Your task to perform on an android device: toggle notifications settings in the gmail app Image 0: 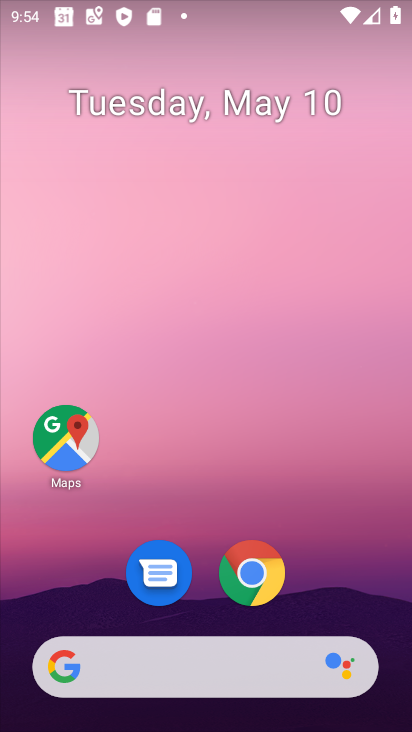
Step 0: drag from (358, 556) to (288, 201)
Your task to perform on an android device: toggle notifications settings in the gmail app Image 1: 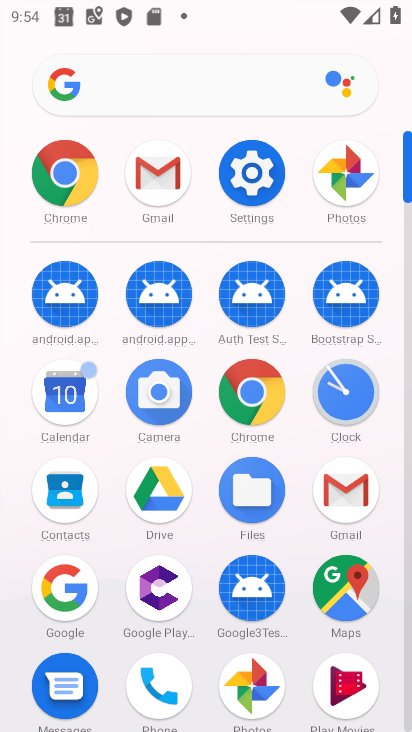
Step 1: click (160, 178)
Your task to perform on an android device: toggle notifications settings in the gmail app Image 2: 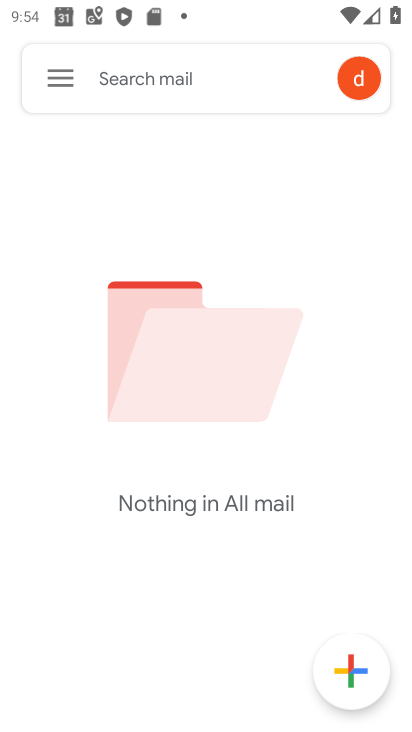
Step 2: click (60, 69)
Your task to perform on an android device: toggle notifications settings in the gmail app Image 3: 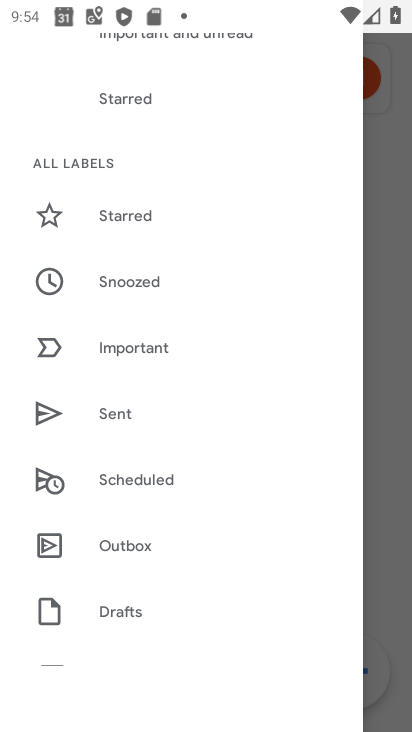
Step 3: drag from (198, 564) to (165, 234)
Your task to perform on an android device: toggle notifications settings in the gmail app Image 4: 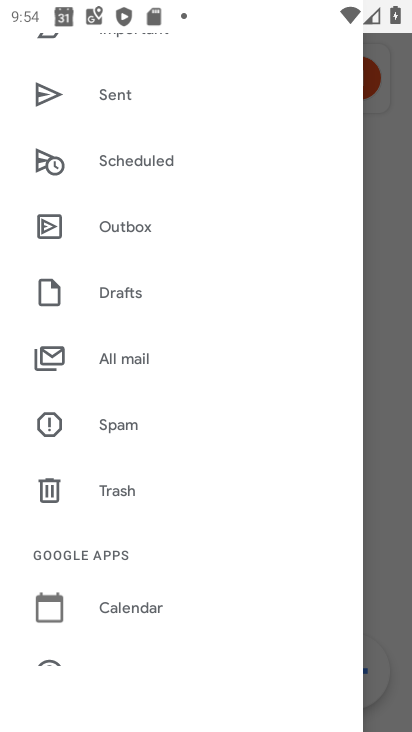
Step 4: drag from (185, 533) to (161, 269)
Your task to perform on an android device: toggle notifications settings in the gmail app Image 5: 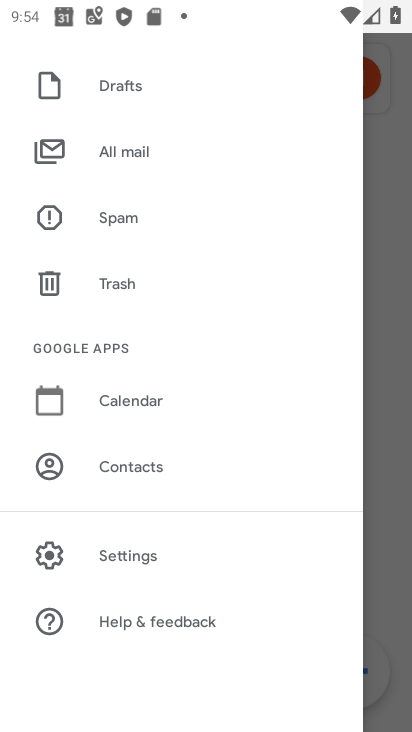
Step 5: click (126, 551)
Your task to perform on an android device: toggle notifications settings in the gmail app Image 6: 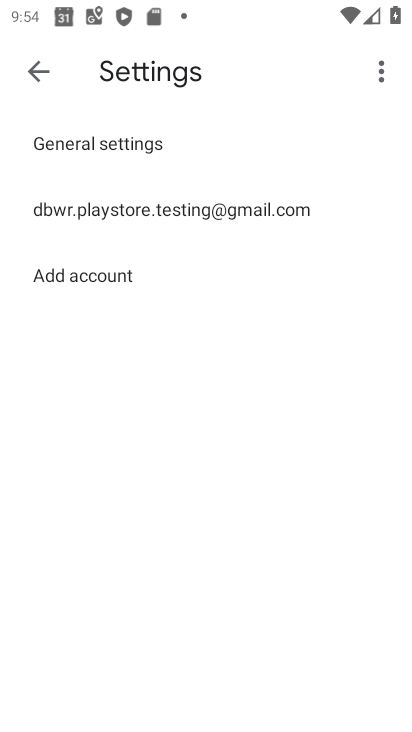
Step 6: click (87, 143)
Your task to perform on an android device: toggle notifications settings in the gmail app Image 7: 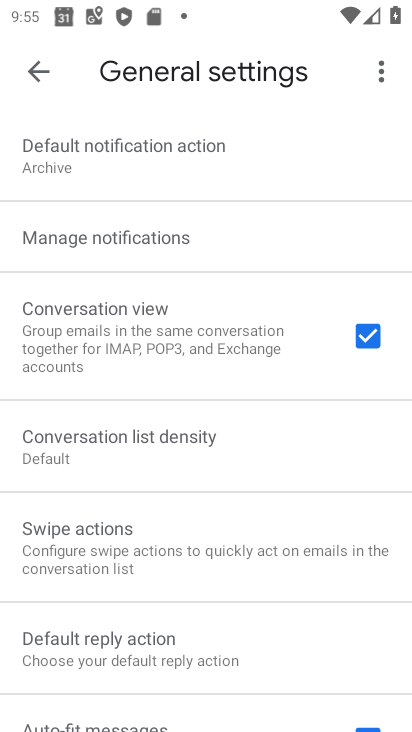
Step 7: click (107, 231)
Your task to perform on an android device: toggle notifications settings in the gmail app Image 8: 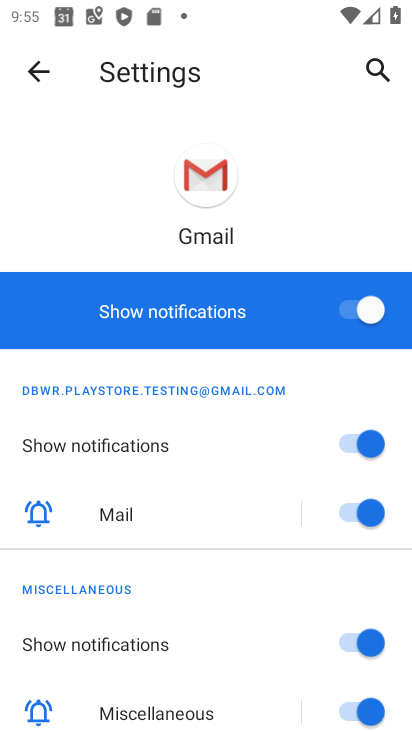
Step 8: click (359, 311)
Your task to perform on an android device: toggle notifications settings in the gmail app Image 9: 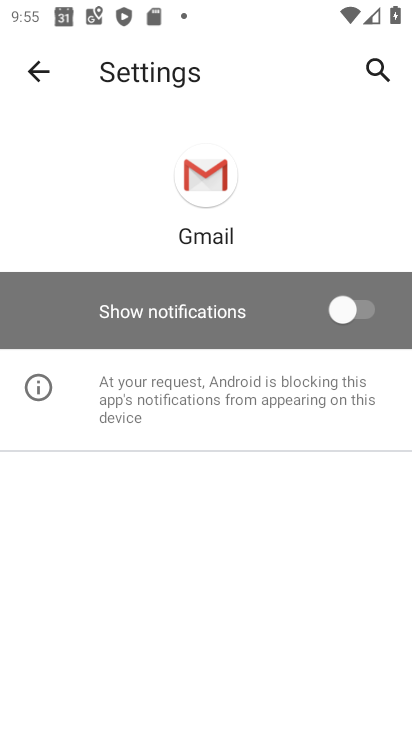
Step 9: task complete